Your task to perform on an android device: turn pop-ups on in chrome Image 0: 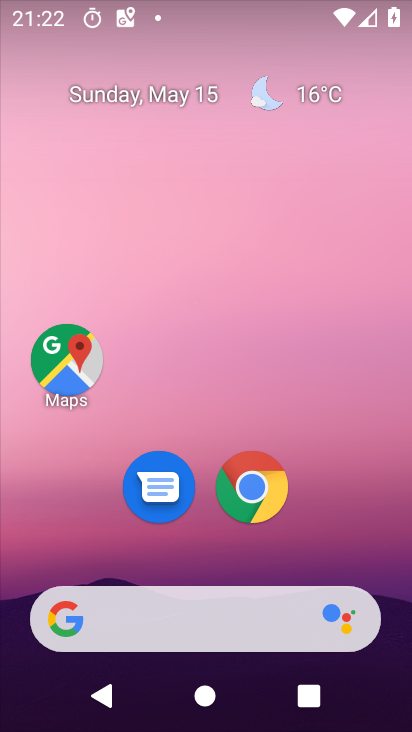
Step 0: click (269, 484)
Your task to perform on an android device: turn pop-ups on in chrome Image 1: 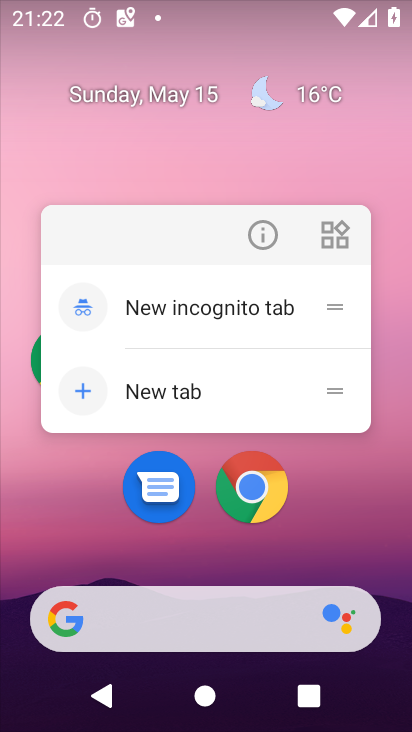
Step 1: click (246, 483)
Your task to perform on an android device: turn pop-ups on in chrome Image 2: 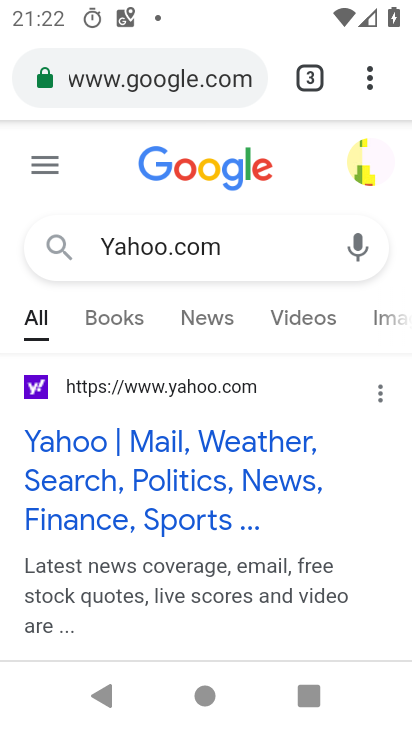
Step 2: click (362, 73)
Your task to perform on an android device: turn pop-ups on in chrome Image 3: 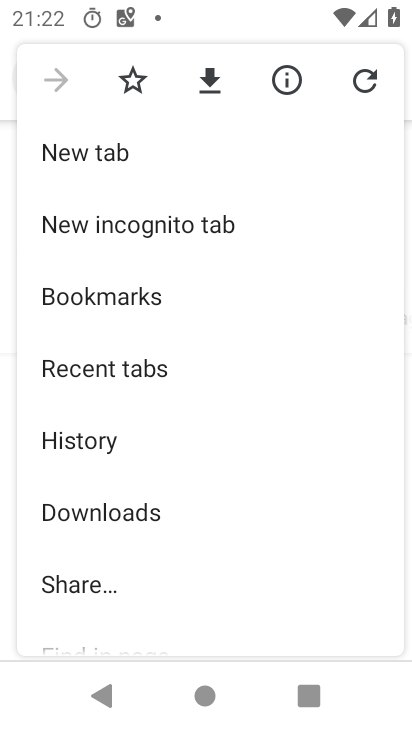
Step 3: drag from (272, 562) to (291, 349)
Your task to perform on an android device: turn pop-ups on in chrome Image 4: 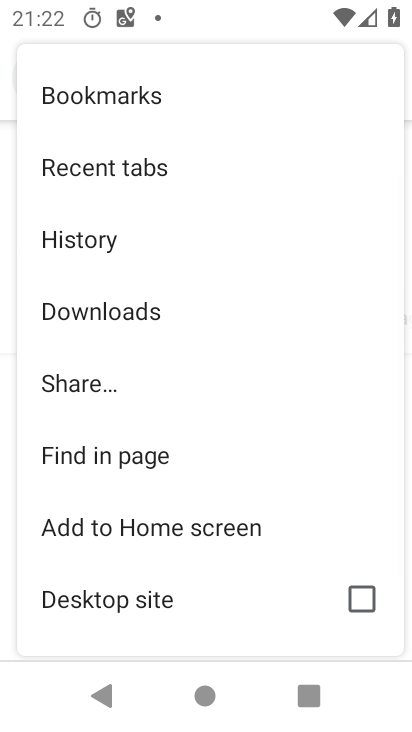
Step 4: drag from (284, 587) to (292, 380)
Your task to perform on an android device: turn pop-ups on in chrome Image 5: 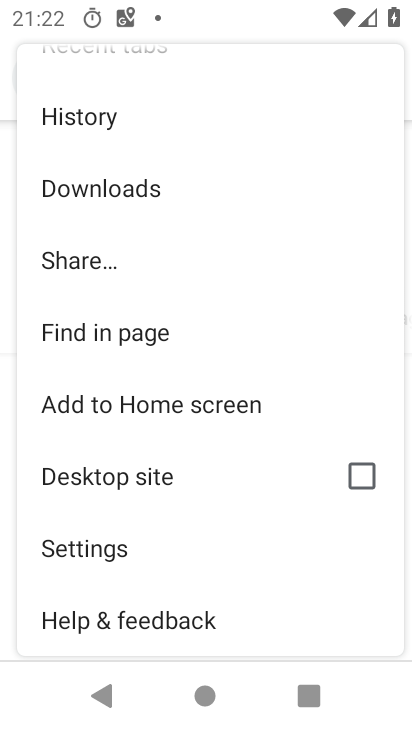
Step 5: click (74, 544)
Your task to perform on an android device: turn pop-ups on in chrome Image 6: 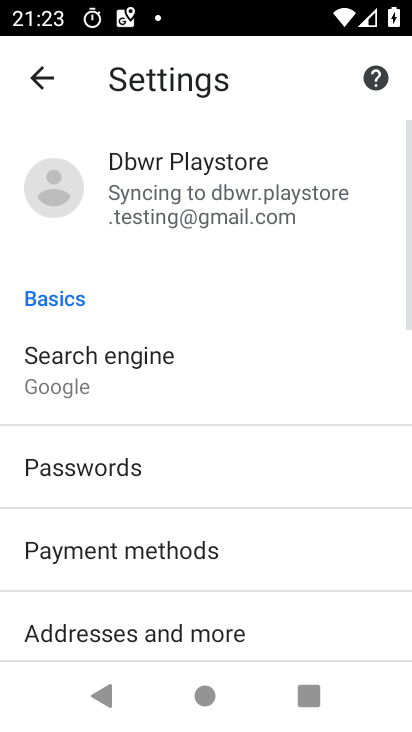
Step 6: drag from (323, 602) to (320, 318)
Your task to perform on an android device: turn pop-ups on in chrome Image 7: 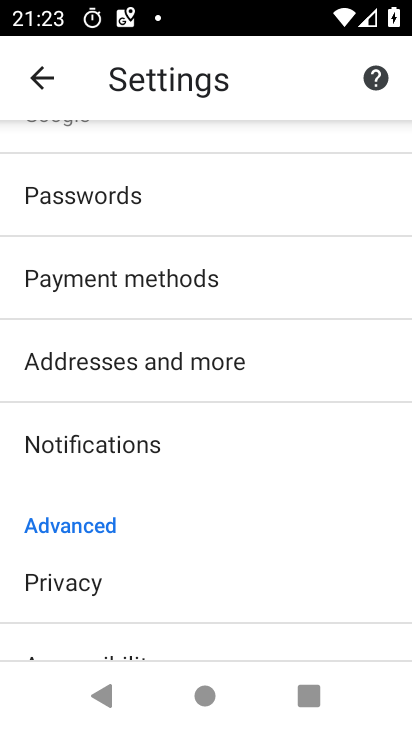
Step 7: drag from (271, 597) to (282, 396)
Your task to perform on an android device: turn pop-ups on in chrome Image 8: 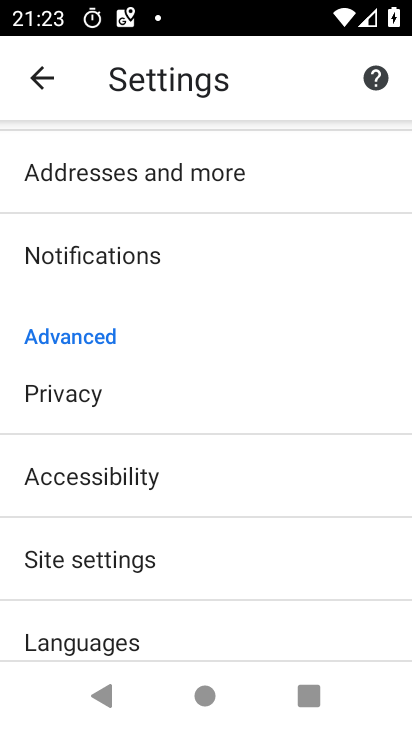
Step 8: click (71, 559)
Your task to perform on an android device: turn pop-ups on in chrome Image 9: 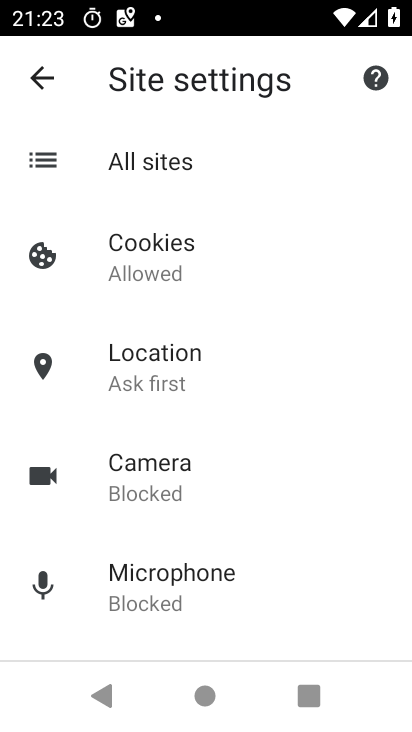
Step 9: drag from (269, 619) to (286, 404)
Your task to perform on an android device: turn pop-ups on in chrome Image 10: 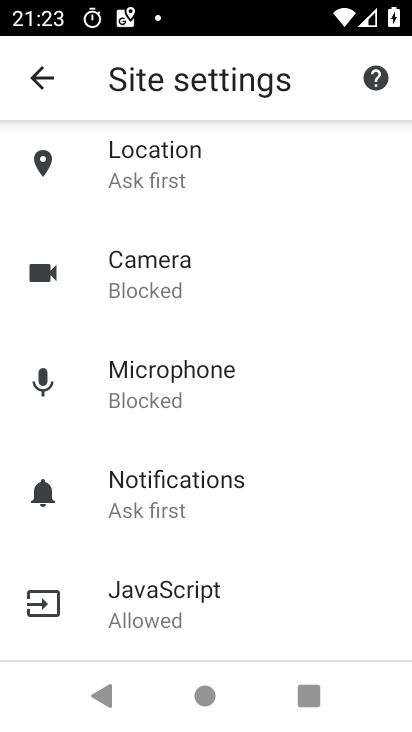
Step 10: drag from (302, 641) to (342, 296)
Your task to perform on an android device: turn pop-ups on in chrome Image 11: 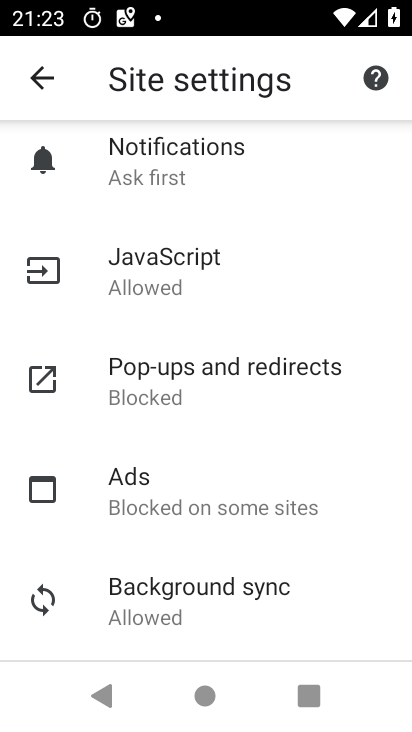
Step 11: drag from (332, 533) to (345, 328)
Your task to perform on an android device: turn pop-ups on in chrome Image 12: 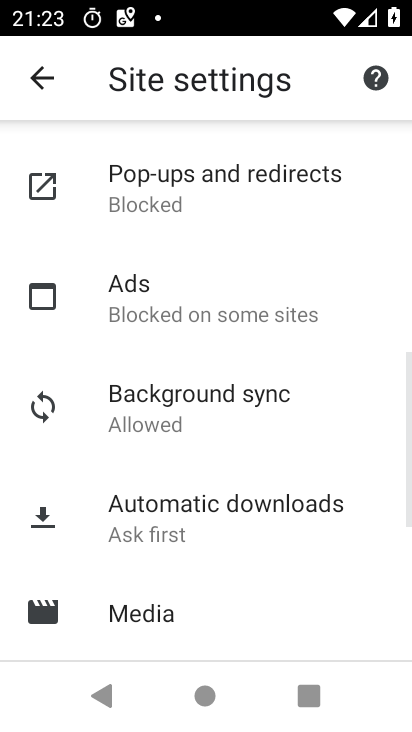
Step 12: click (157, 175)
Your task to perform on an android device: turn pop-ups on in chrome Image 13: 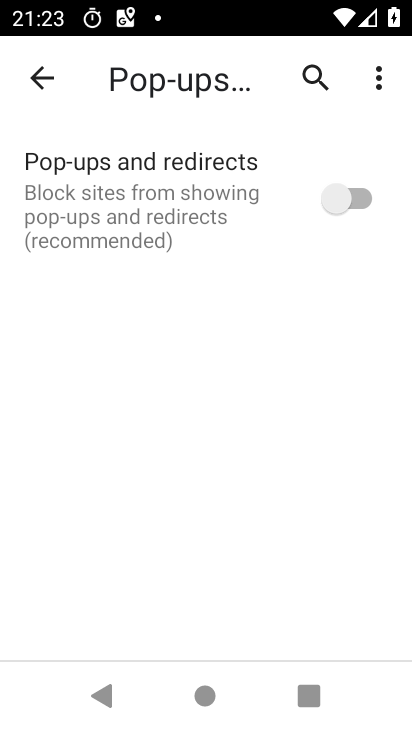
Step 13: click (336, 197)
Your task to perform on an android device: turn pop-ups on in chrome Image 14: 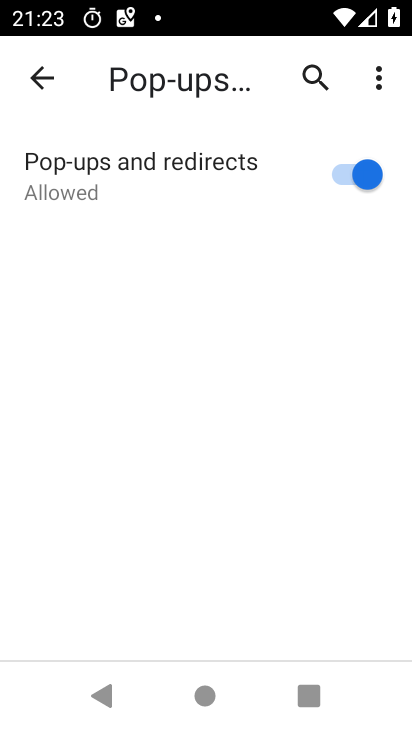
Step 14: task complete